Your task to perform on an android device: Show the shopping cart on ebay. Add "razer naga" to the cart on ebay Image 0: 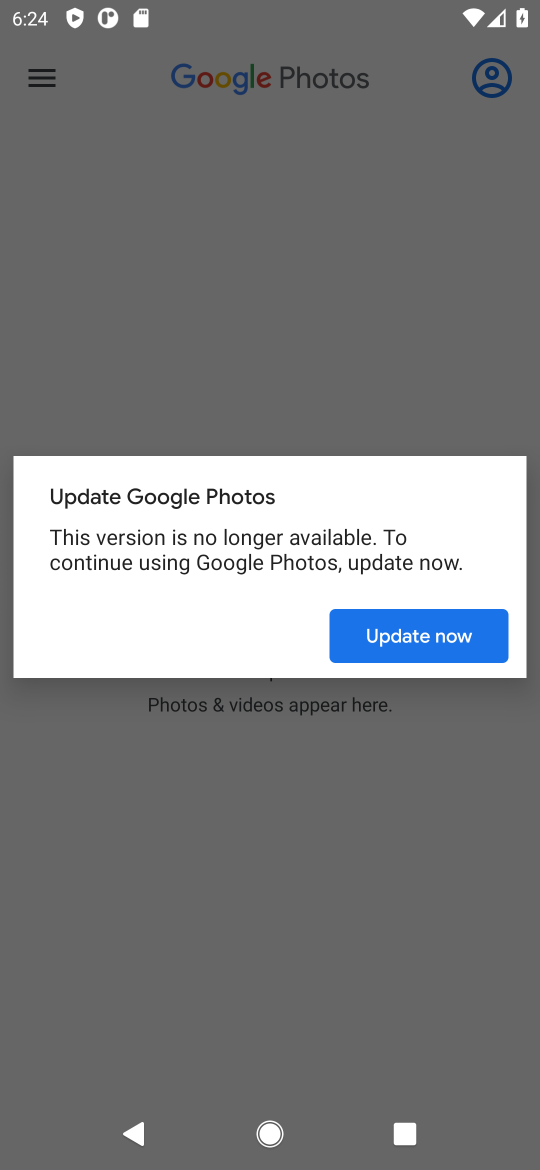
Step 0: press home button
Your task to perform on an android device: Show the shopping cart on ebay. Add "razer naga" to the cart on ebay Image 1: 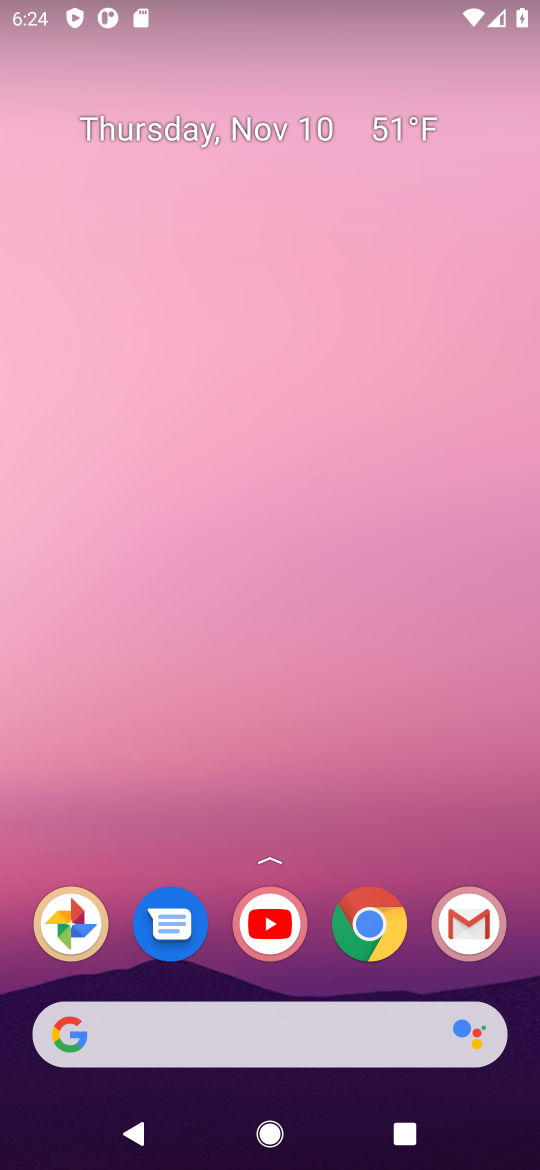
Step 1: click (377, 930)
Your task to perform on an android device: Show the shopping cart on ebay. Add "razer naga" to the cart on ebay Image 2: 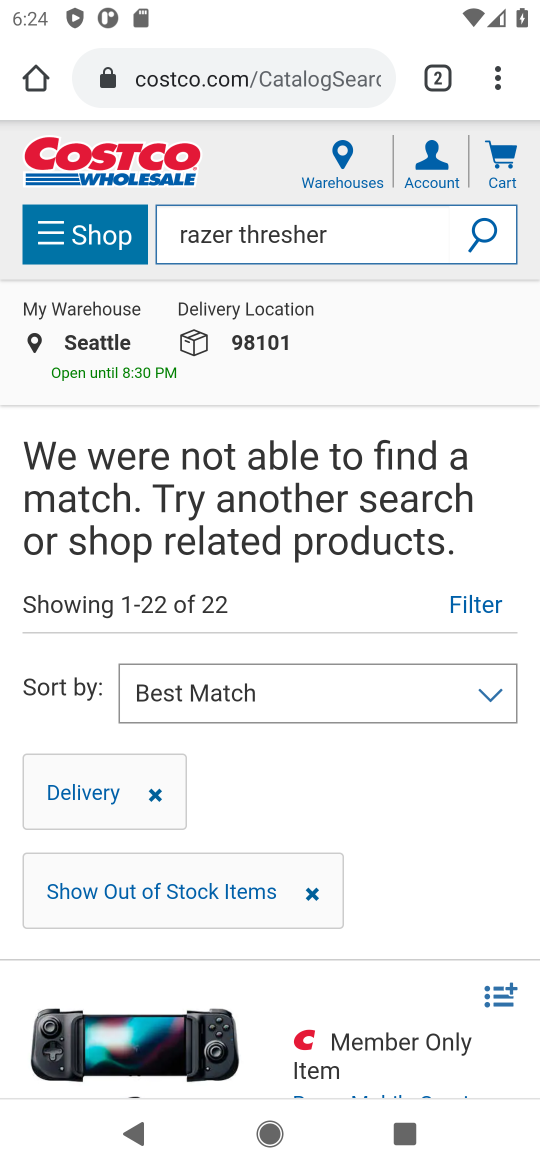
Step 2: click (196, 87)
Your task to perform on an android device: Show the shopping cart on ebay. Add "razer naga" to the cart on ebay Image 3: 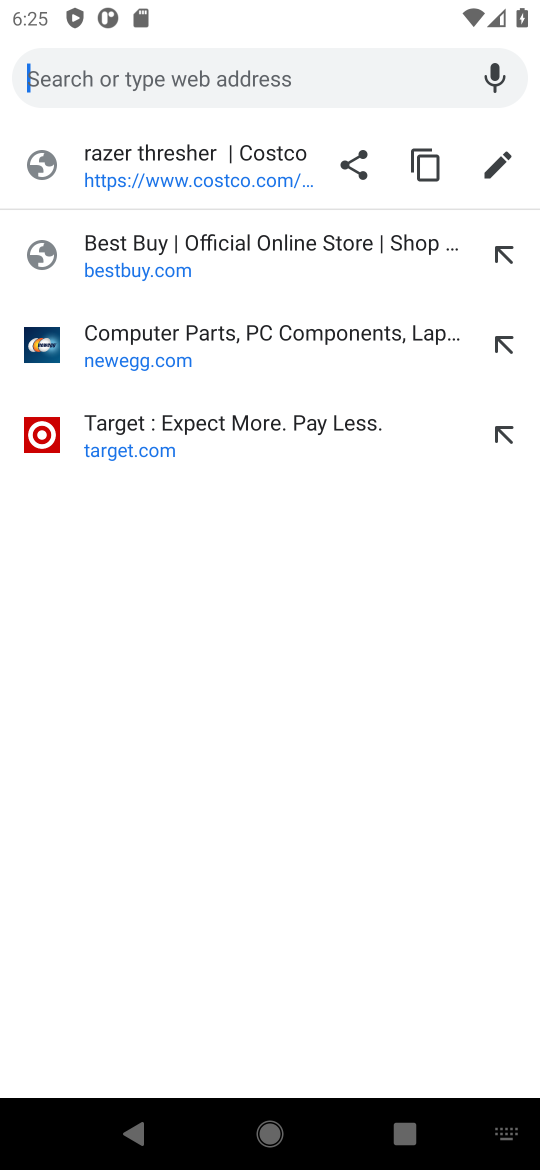
Step 3: type "ebay.com"
Your task to perform on an android device: Show the shopping cart on ebay. Add "razer naga" to the cart on ebay Image 4: 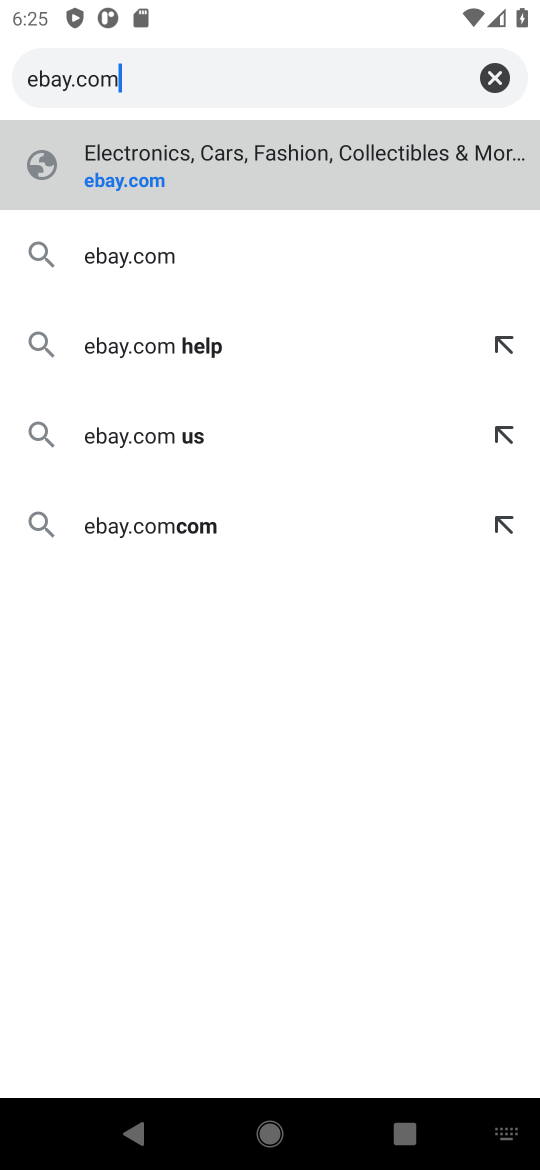
Step 4: click (128, 179)
Your task to perform on an android device: Show the shopping cart on ebay. Add "razer naga" to the cart on ebay Image 5: 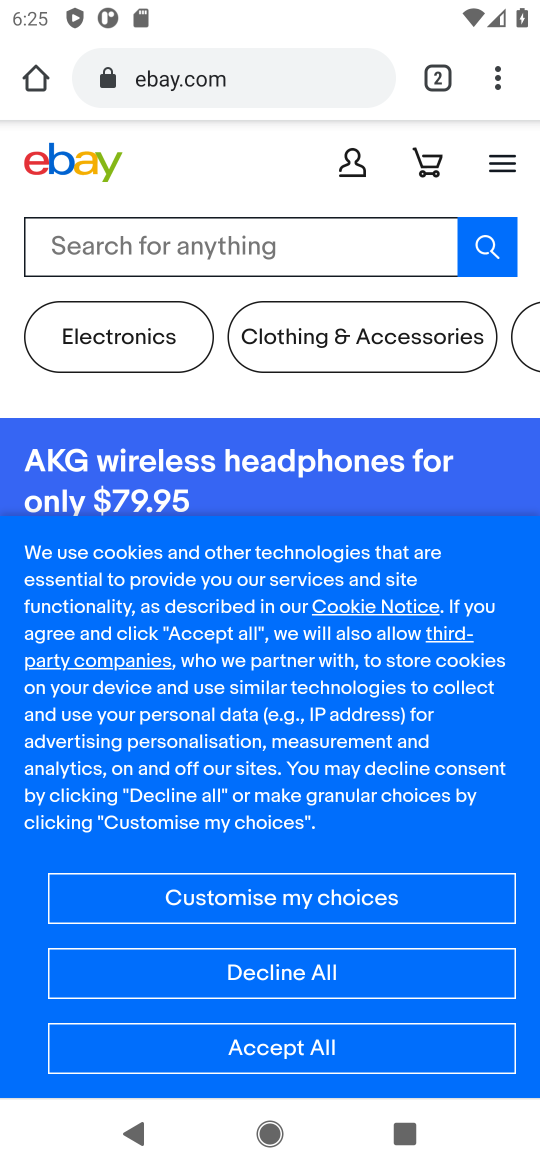
Step 5: click (433, 171)
Your task to perform on an android device: Show the shopping cart on ebay. Add "razer naga" to the cart on ebay Image 6: 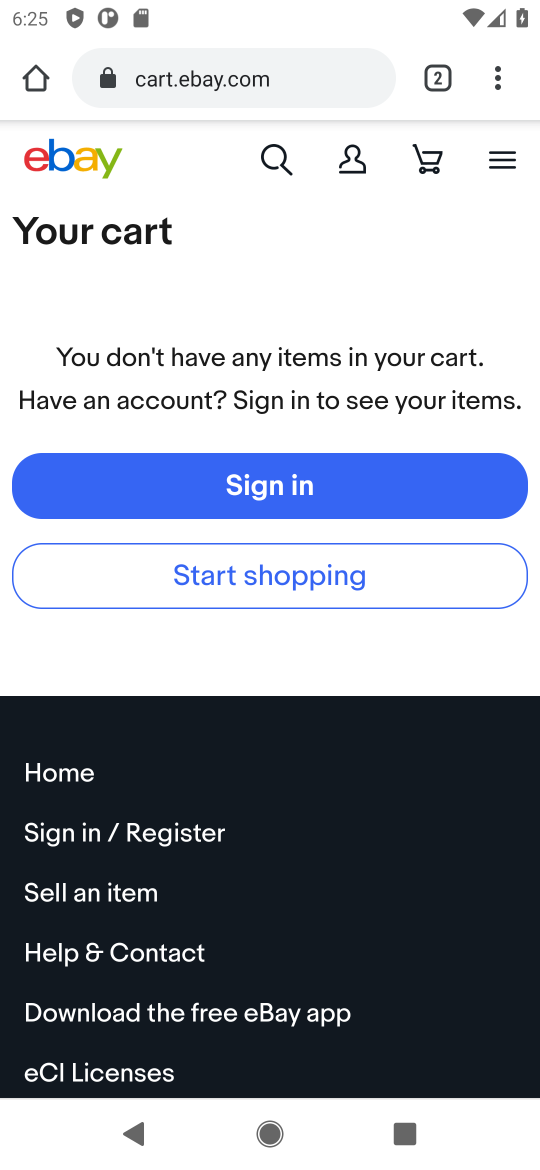
Step 6: click (270, 156)
Your task to perform on an android device: Show the shopping cart on ebay. Add "razer naga" to the cart on ebay Image 7: 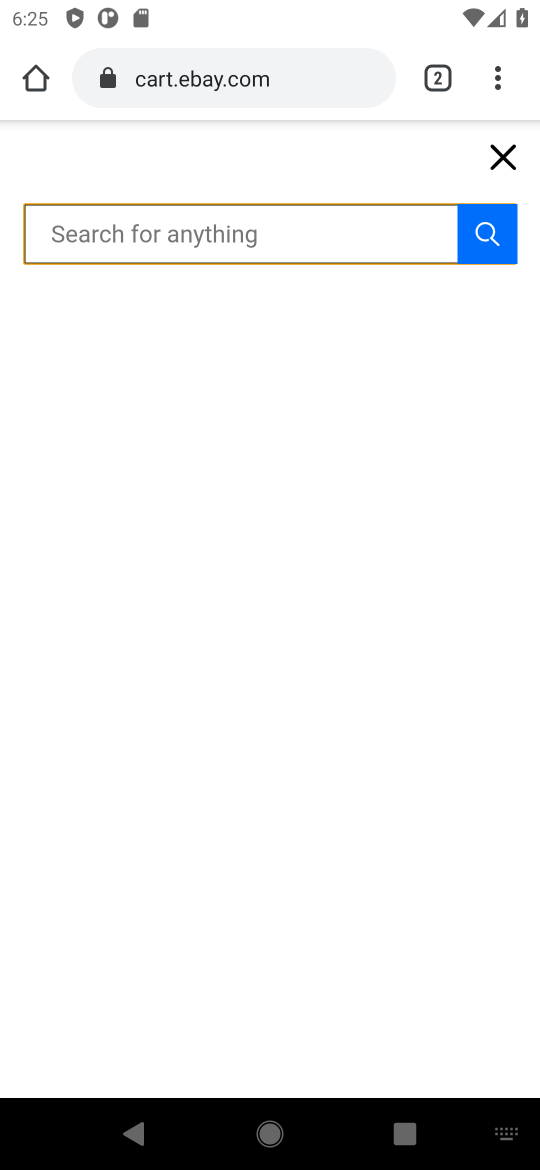
Step 7: type "razer naga"
Your task to perform on an android device: Show the shopping cart on ebay. Add "razer naga" to the cart on ebay Image 8: 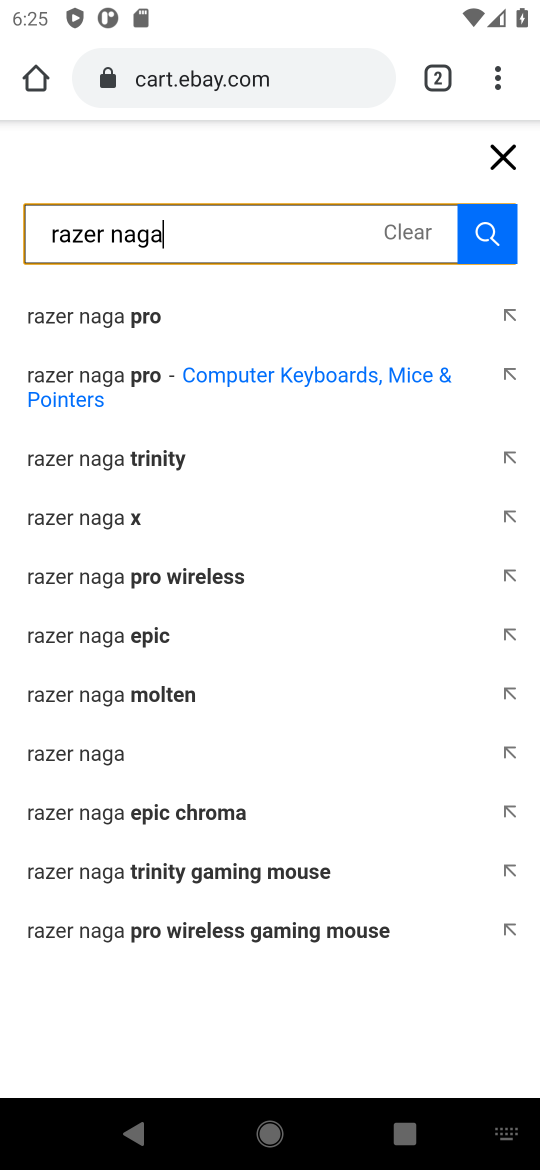
Step 8: click (98, 760)
Your task to perform on an android device: Show the shopping cart on ebay. Add "razer naga" to the cart on ebay Image 9: 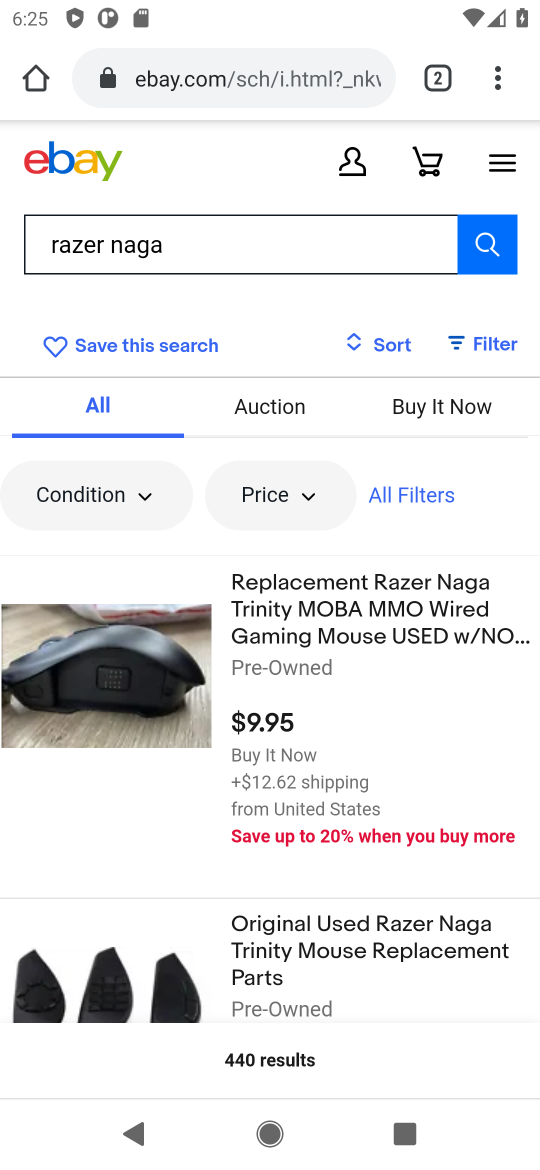
Step 9: drag from (92, 921) to (66, 685)
Your task to perform on an android device: Show the shopping cart on ebay. Add "razer naga" to the cart on ebay Image 10: 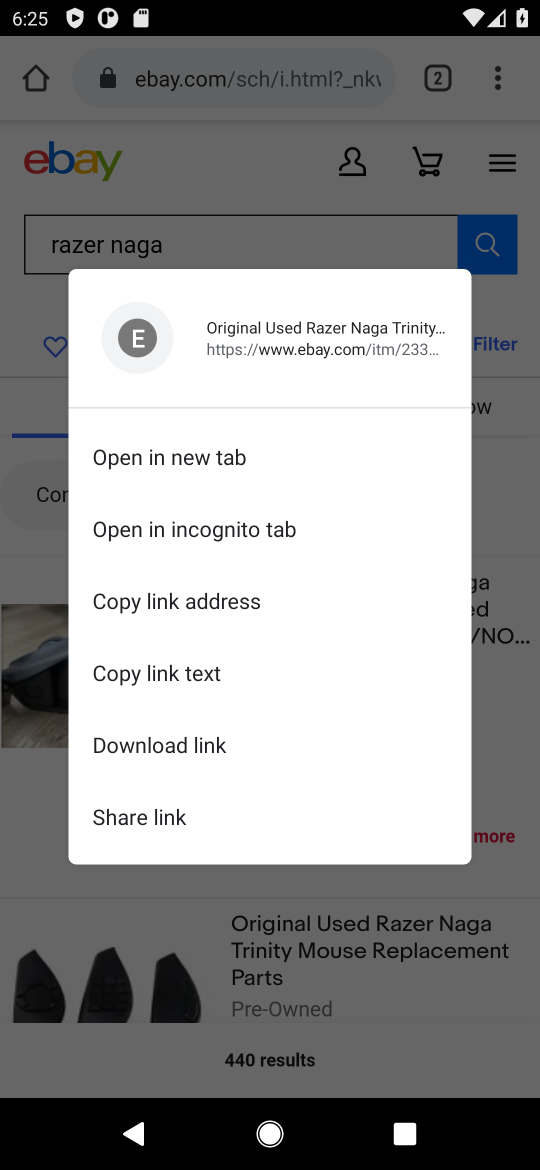
Step 10: click (511, 999)
Your task to perform on an android device: Show the shopping cart on ebay. Add "razer naga" to the cart on ebay Image 11: 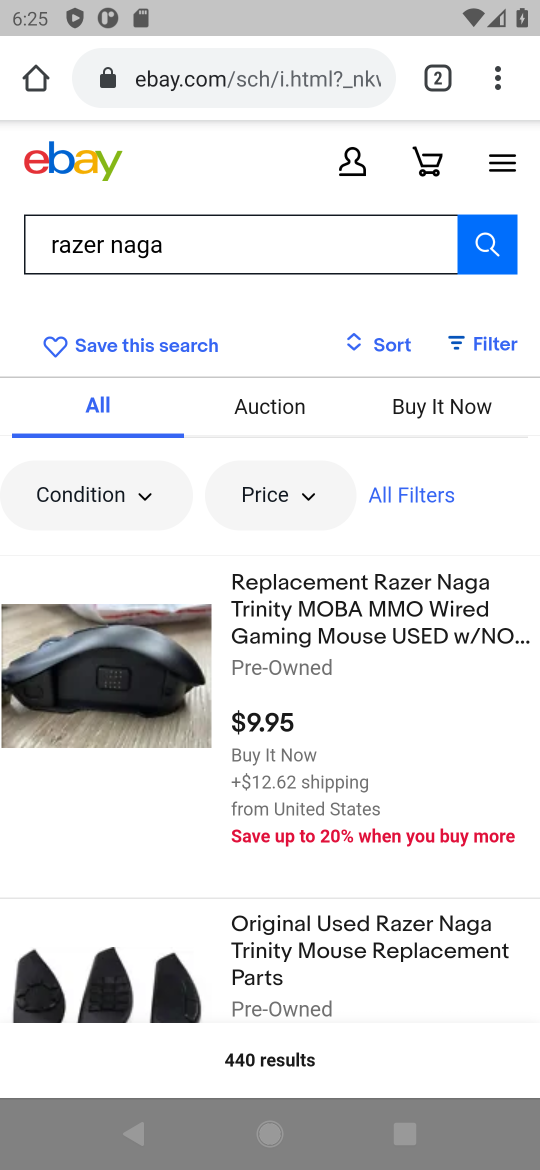
Step 11: drag from (511, 993) to (526, 636)
Your task to perform on an android device: Show the shopping cart on ebay. Add "razer naga" to the cart on ebay Image 12: 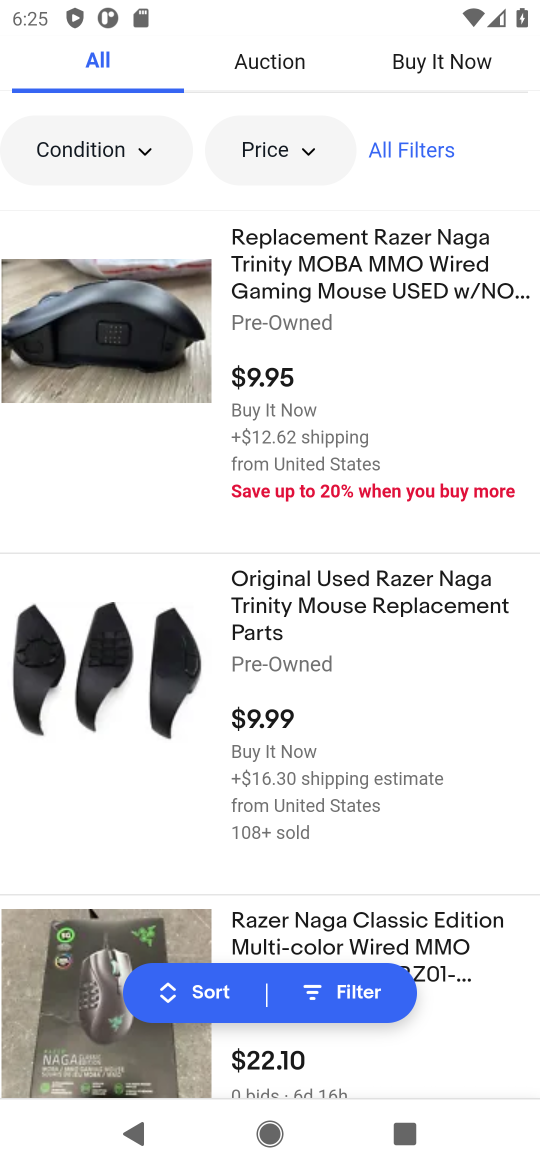
Step 12: drag from (389, 815) to (435, 587)
Your task to perform on an android device: Show the shopping cart on ebay. Add "razer naga" to the cart on ebay Image 13: 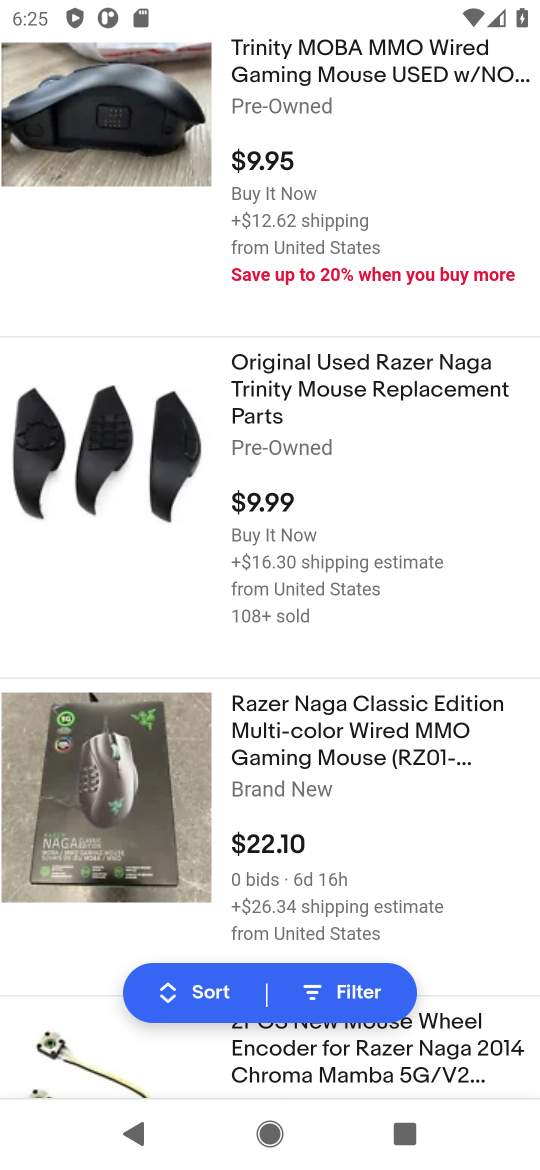
Step 13: click (118, 779)
Your task to perform on an android device: Show the shopping cart on ebay. Add "razer naga" to the cart on ebay Image 14: 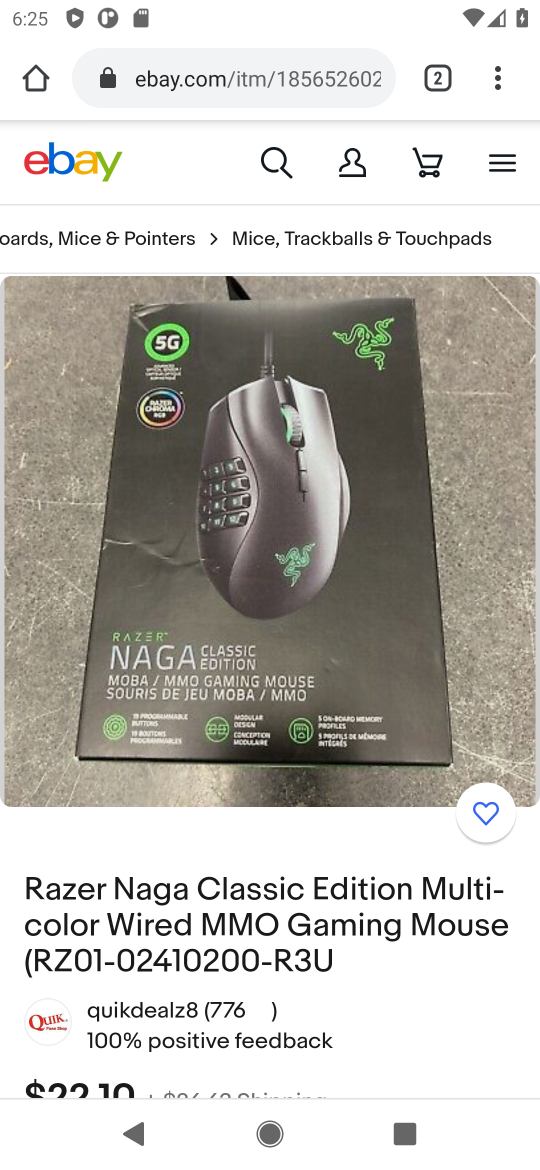
Step 14: drag from (140, 832) to (208, 429)
Your task to perform on an android device: Show the shopping cart on ebay. Add "razer naga" to the cart on ebay Image 15: 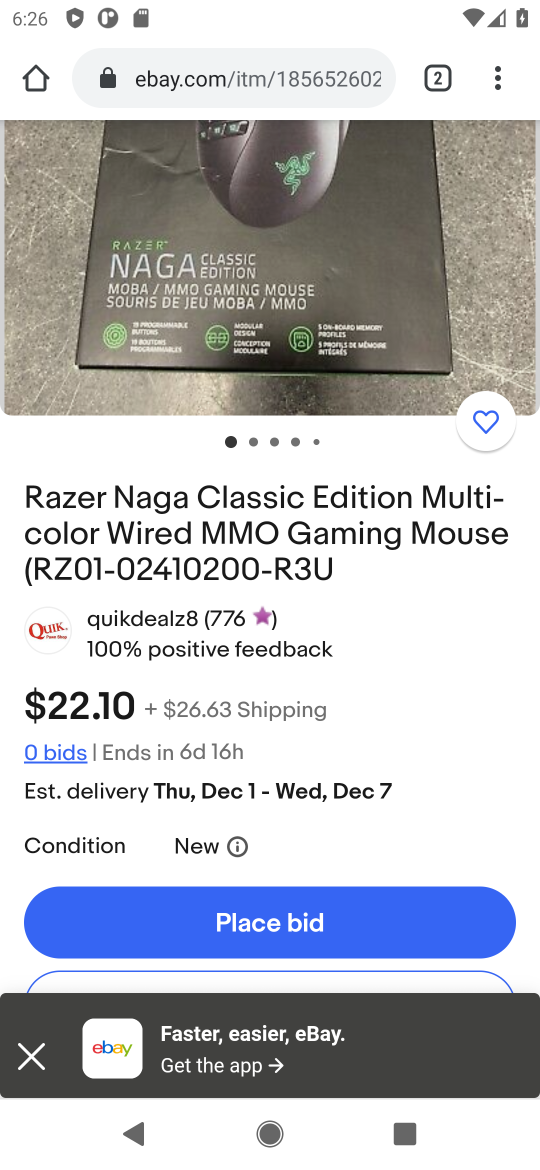
Step 15: press back button
Your task to perform on an android device: Show the shopping cart on ebay. Add "razer naga" to the cart on ebay Image 16: 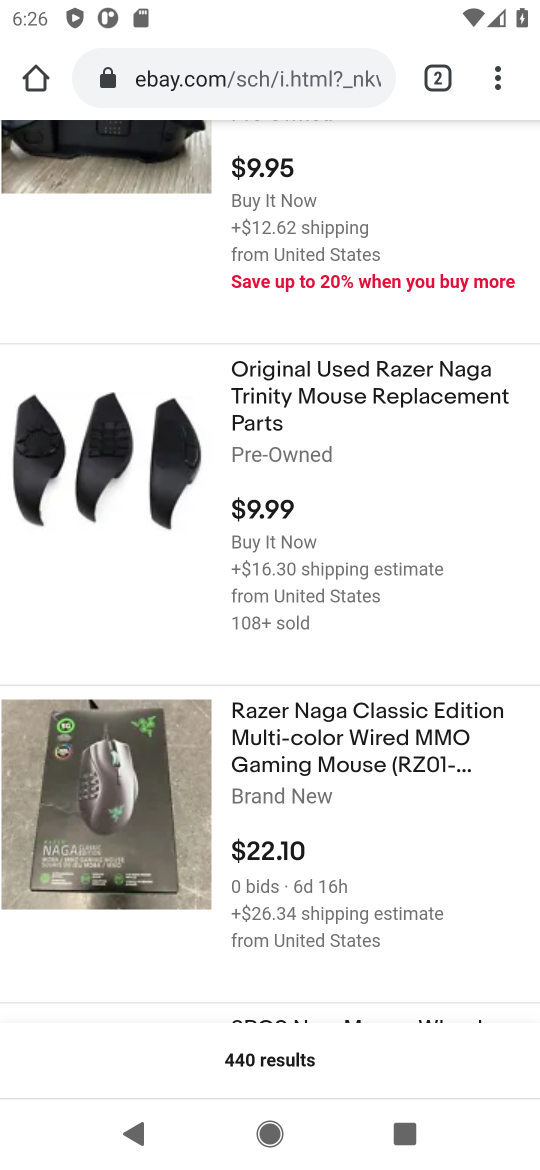
Step 16: drag from (177, 810) to (229, 358)
Your task to perform on an android device: Show the shopping cart on ebay. Add "razer naga" to the cart on ebay Image 17: 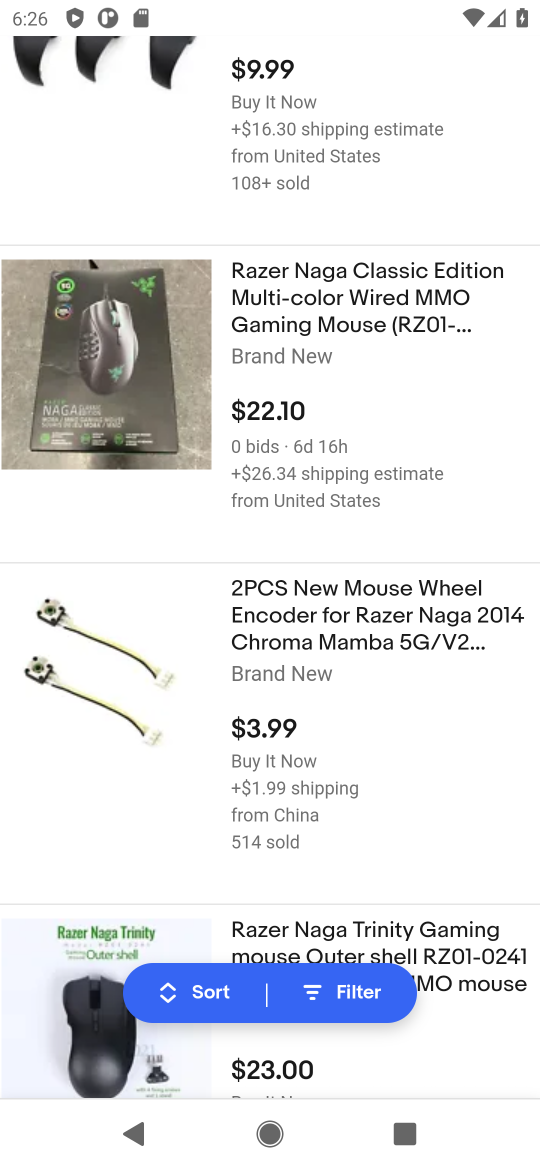
Step 17: drag from (225, 826) to (235, 484)
Your task to perform on an android device: Show the shopping cart on ebay. Add "razer naga" to the cart on ebay Image 18: 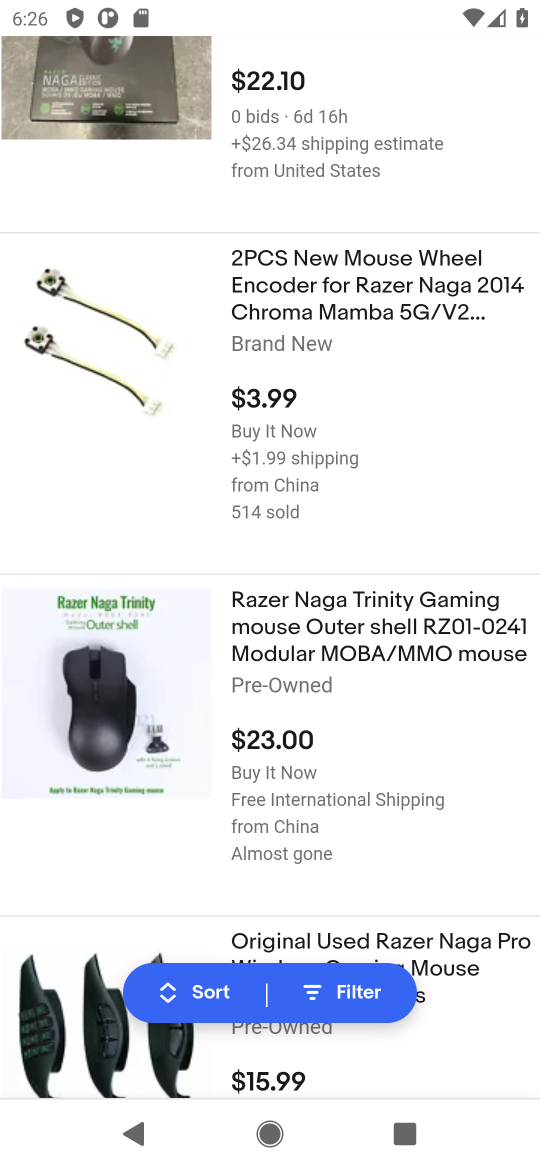
Step 18: click (91, 716)
Your task to perform on an android device: Show the shopping cart on ebay. Add "razer naga" to the cart on ebay Image 19: 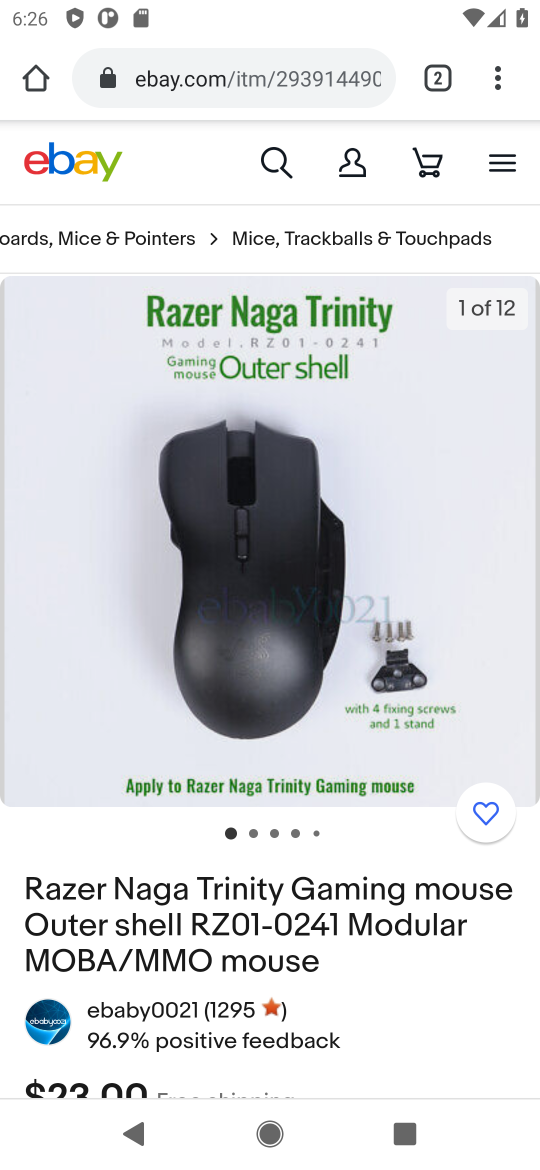
Step 19: drag from (191, 810) to (218, 349)
Your task to perform on an android device: Show the shopping cart on ebay. Add "razer naga" to the cart on ebay Image 20: 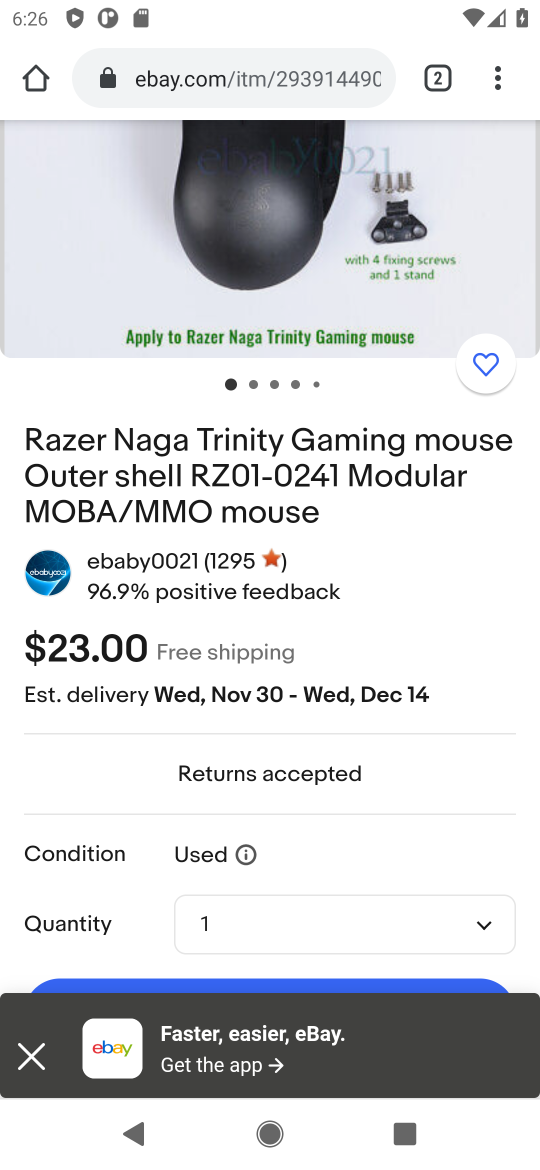
Step 20: drag from (235, 665) to (242, 426)
Your task to perform on an android device: Show the shopping cart on ebay. Add "razer naga" to the cart on ebay Image 21: 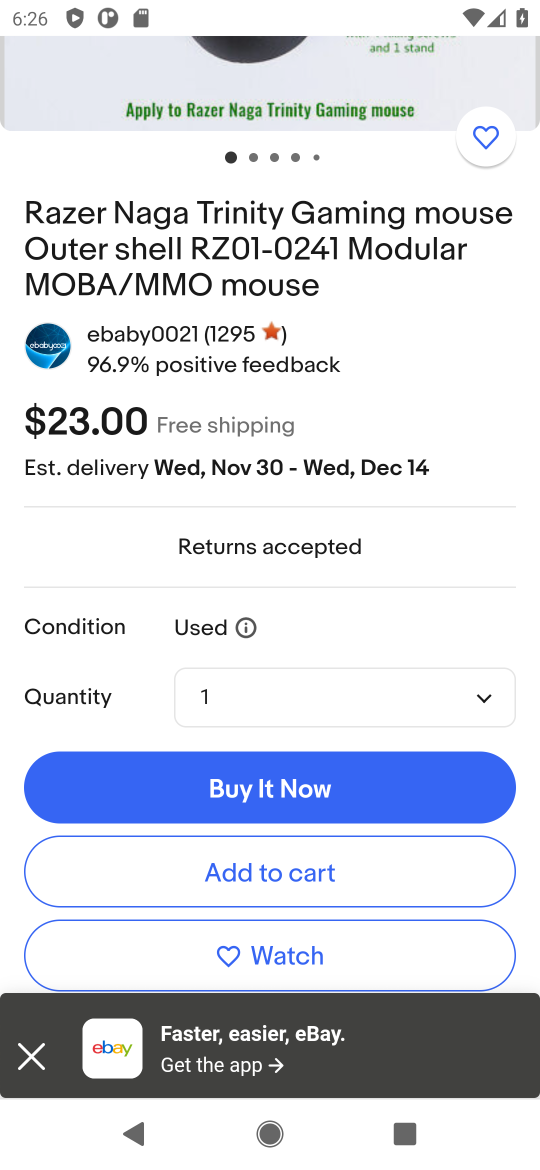
Step 21: click (236, 881)
Your task to perform on an android device: Show the shopping cart on ebay. Add "razer naga" to the cart on ebay Image 22: 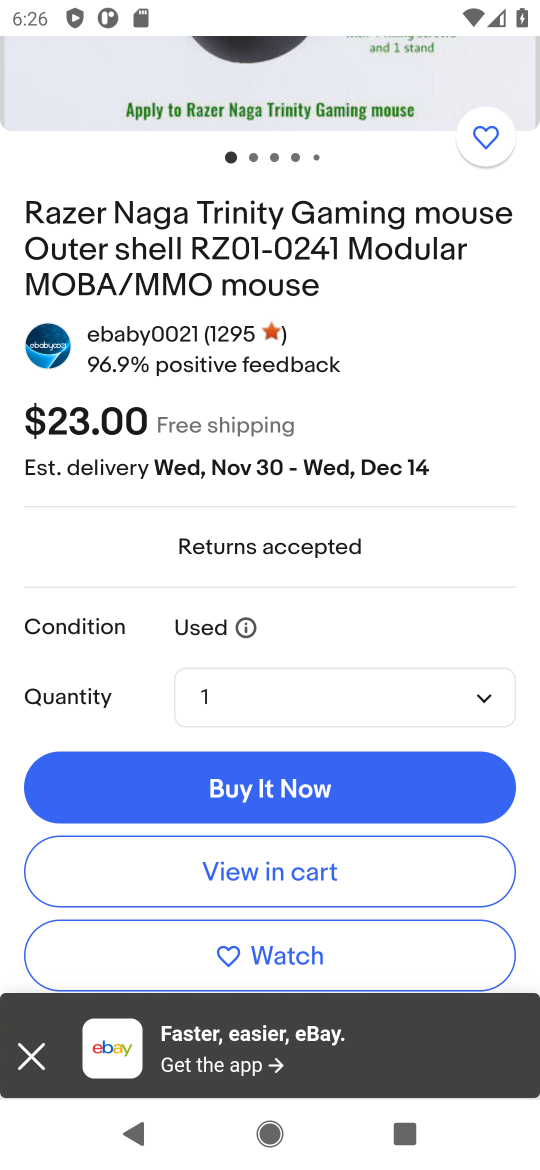
Step 22: task complete